Your task to perform on an android device: remove spam from my inbox in the gmail app Image 0: 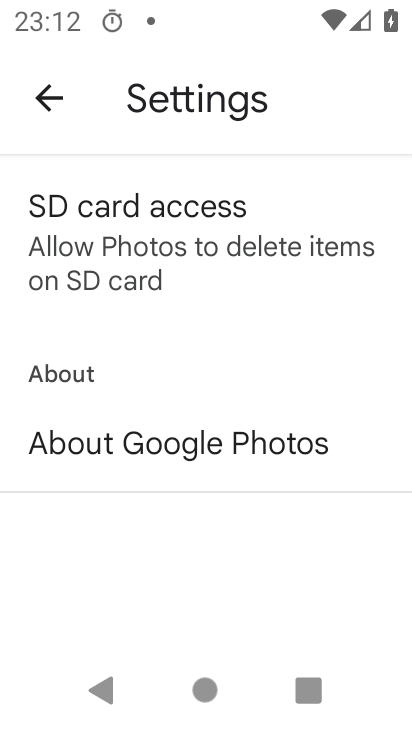
Step 0: press home button
Your task to perform on an android device: remove spam from my inbox in the gmail app Image 1: 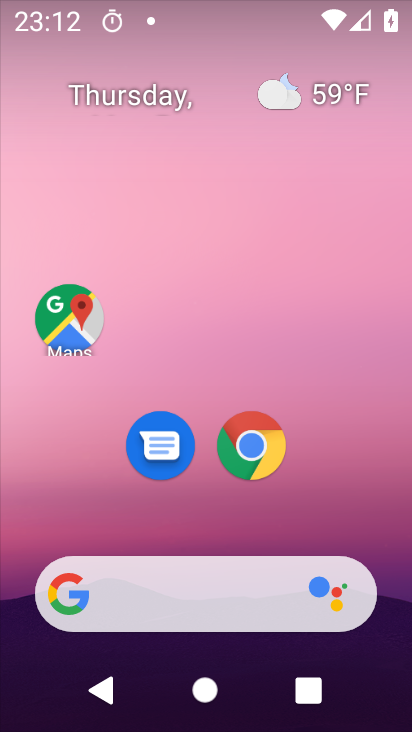
Step 1: drag from (218, 567) to (206, 181)
Your task to perform on an android device: remove spam from my inbox in the gmail app Image 2: 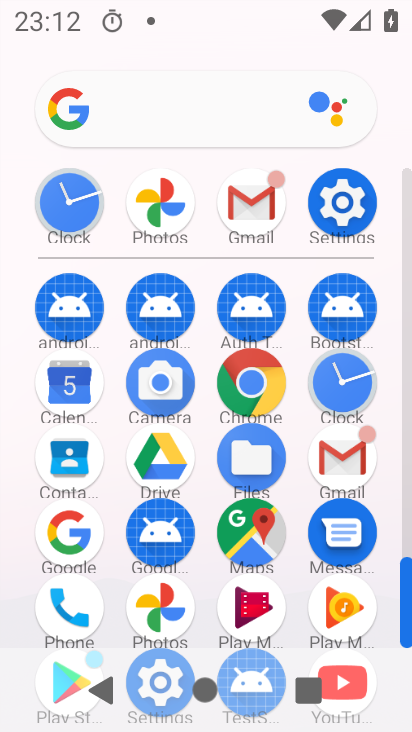
Step 2: click (241, 199)
Your task to perform on an android device: remove spam from my inbox in the gmail app Image 3: 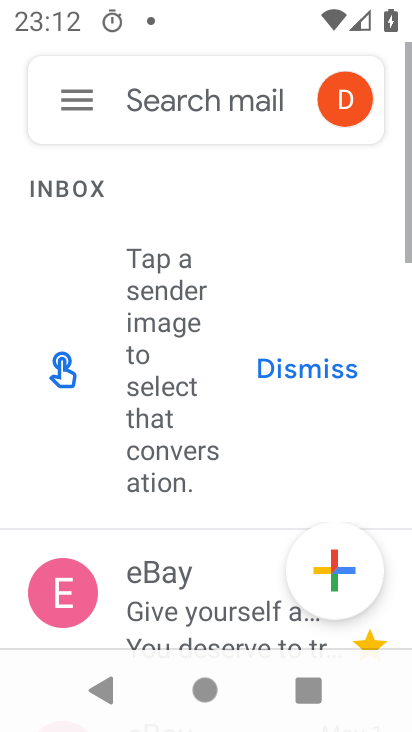
Step 3: click (82, 114)
Your task to perform on an android device: remove spam from my inbox in the gmail app Image 4: 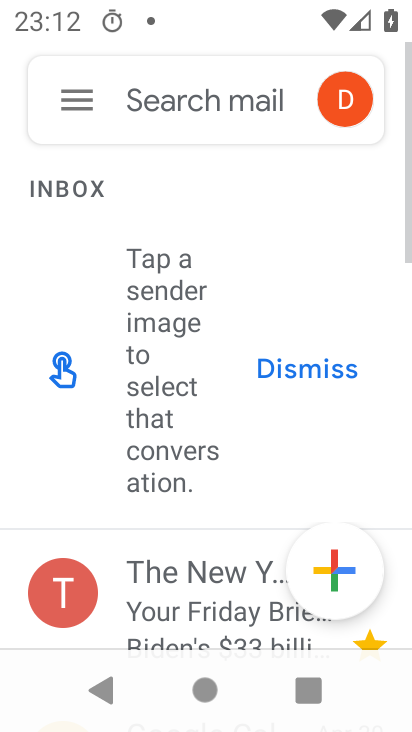
Step 4: click (69, 104)
Your task to perform on an android device: remove spam from my inbox in the gmail app Image 5: 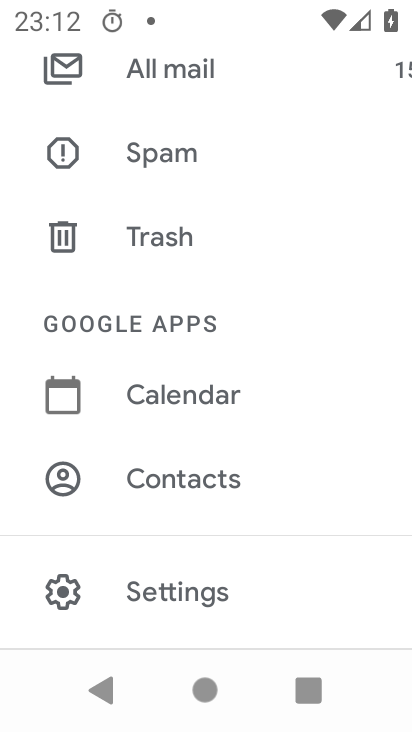
Step 5: click (101, 164)
Your task to perform on an android device: remove spam from my inbox in the gmail app Image 6: 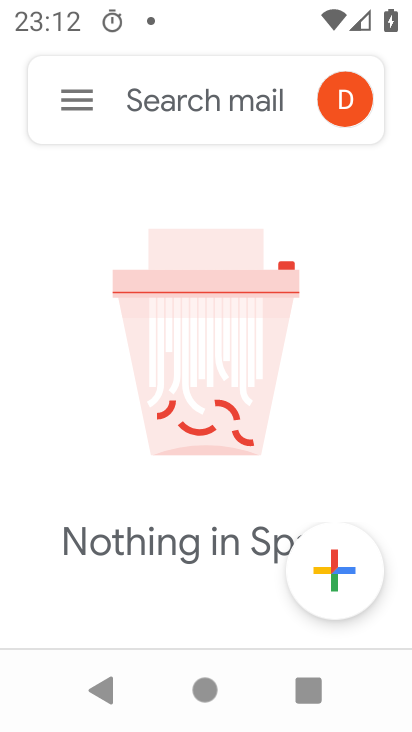
Step 6: task complete